Your task to perform on an android device: Open Google Chrome Image 0: 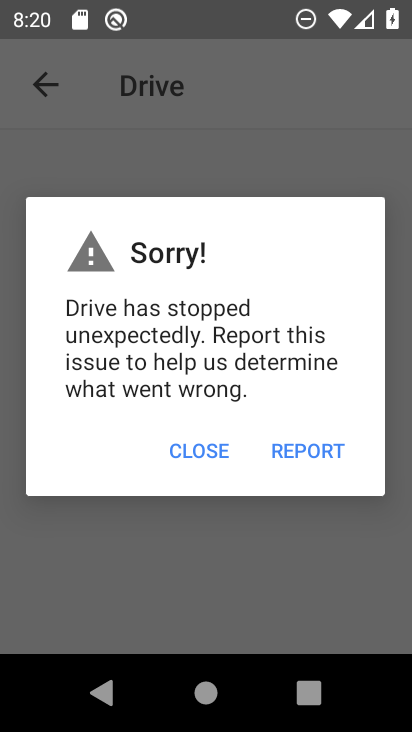
Step 0: press home button
Your task to perform on an android device: Open Google Chrome Image 1: 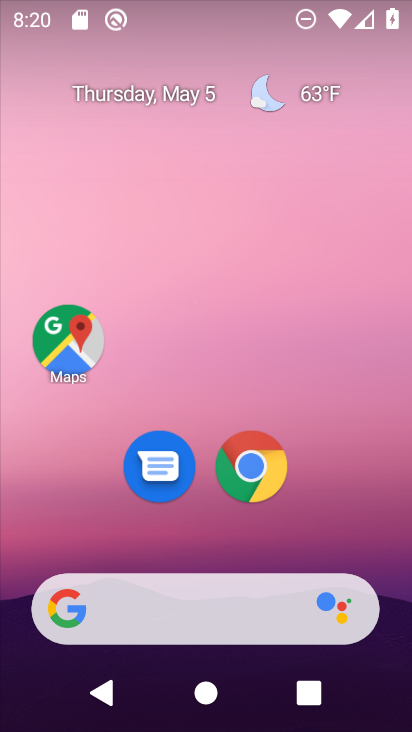
Step 1: click (262, 490)
Your task to perform on an android device: Open Google Chrome Image 2: 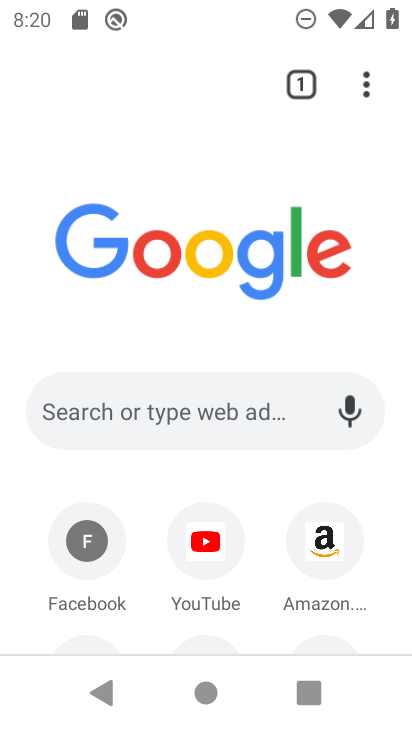
Step 2: task complete